Your task to perform on an android device: Show me popular games on the Play Store Image 0: 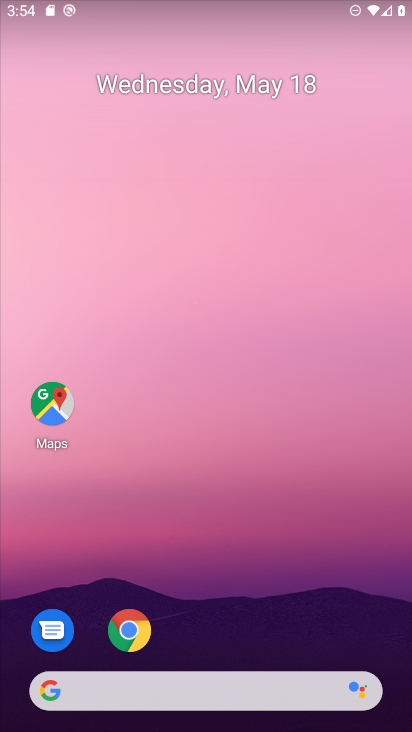
Step 0: press home button
Your task to perform on an android device: Show me popular games on the Play Store Image 1: 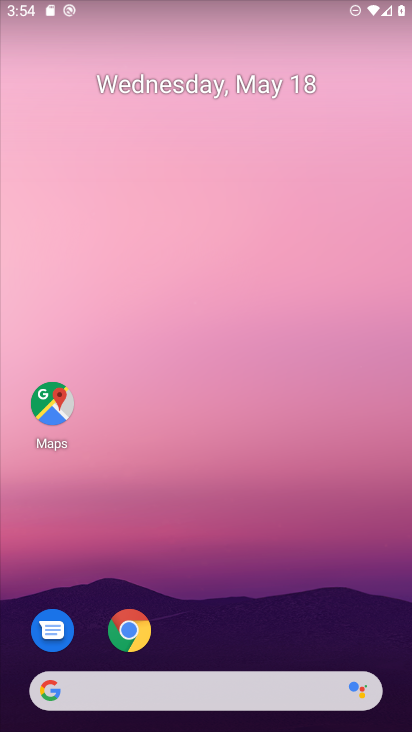
Step 1: drag from (219, 647) to (262, 43)
Your task to perform on an android device: Show me popular games on the Play Store Image 2: 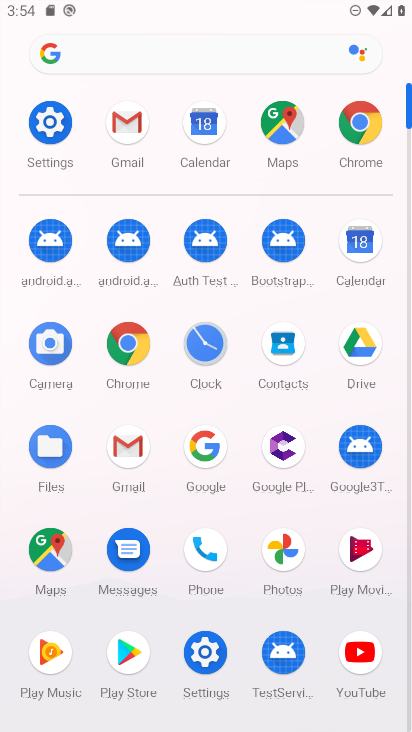
Step 2: click (126, 641)
Your task to perform on an android device: Show me popular games on the Play Store Image 3: 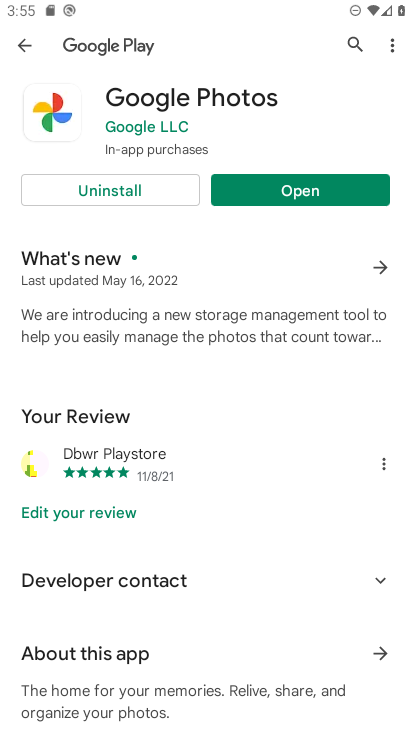
Step 3: click (31, 50)
Your task to perform on an android device: Show me popular games on the Play Store Image 4: 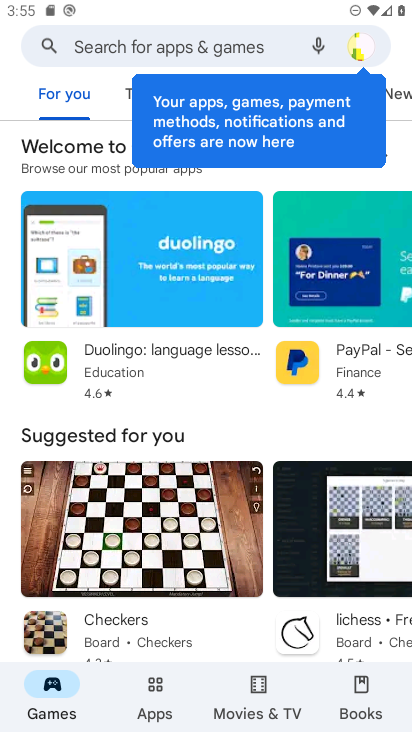
Step 4: drag from (216, 631) to (243, 165)
Your task to perform on an android device: Show me popular games on the Play Store Image 5: 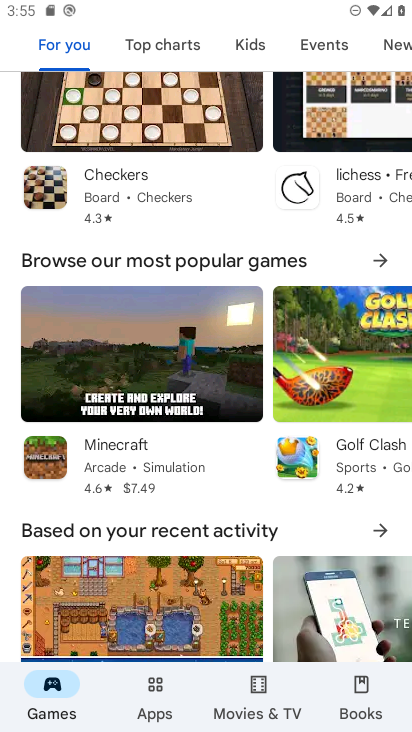
Step 5: click (374, 260)
Your task to perform on an android device: Show me popular games on the Play Store Image 6: 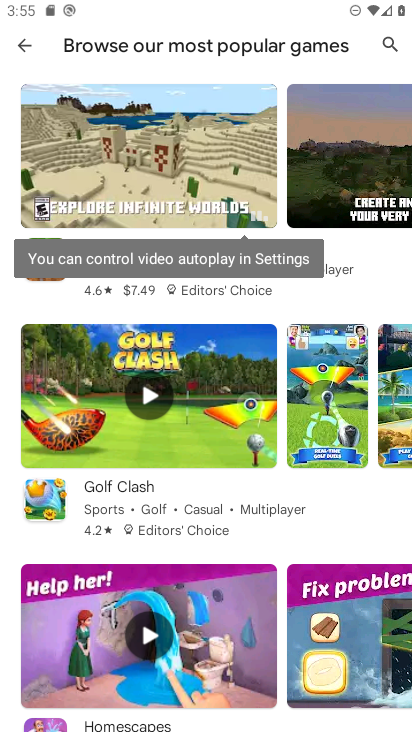
Step 6: drag from (279, 544) to (274, 241)
Your task to perform on an android device: Show me popular games on the Play Store Image 7: 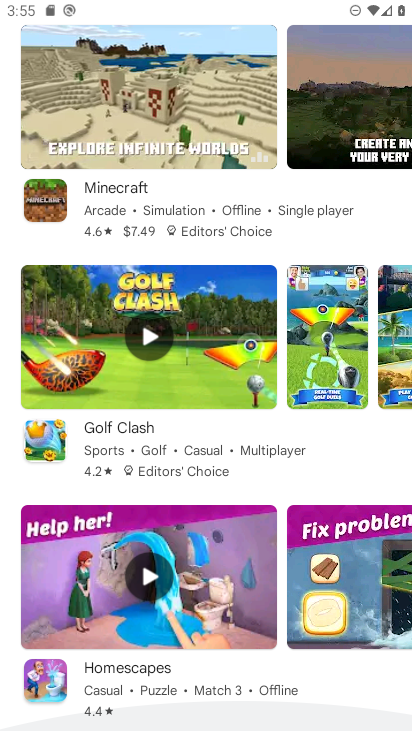
Step 7: click (274, 167)
Your task to perform on an android device: Show me popular games on the Play Store Image 8: 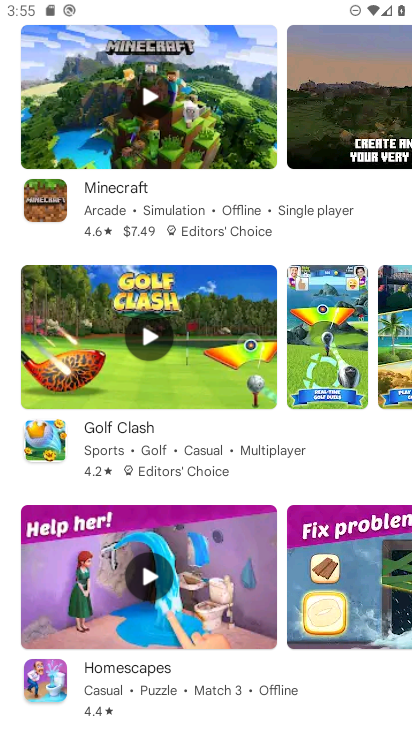
Step 8: task complete